Your task to perform on an android device: clear all cookies in the chrome app Image 0: 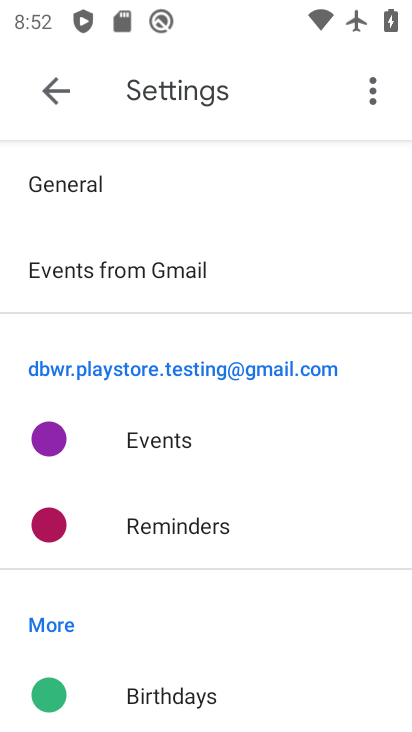
Step 0: press home button
Your task to perform on an android device: clear all cookies in the chrome app Image 1: 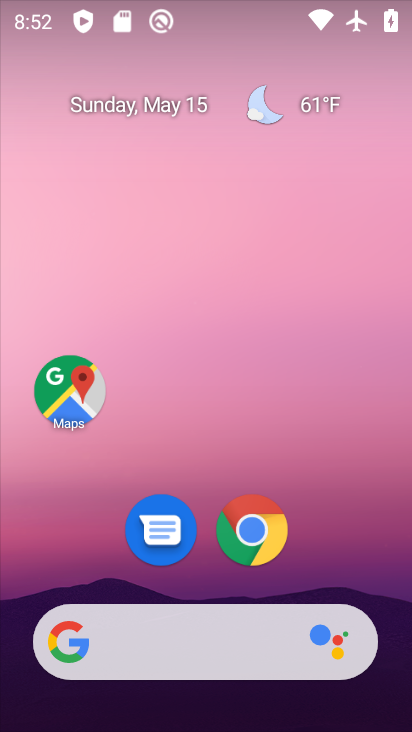
Step 1: click (256, 528)
Your task to perform on an android device: clear all cookies in the chrome app Image 2: 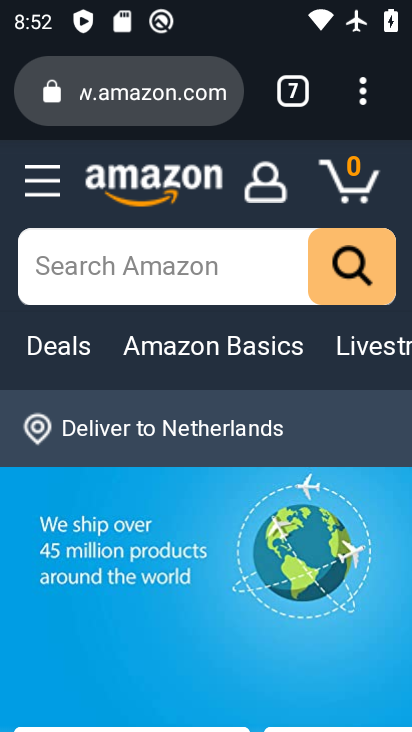
Step 2: click (362, 101)
Your task to perform on an android device: clear all cookies in the chrome app Image 3: 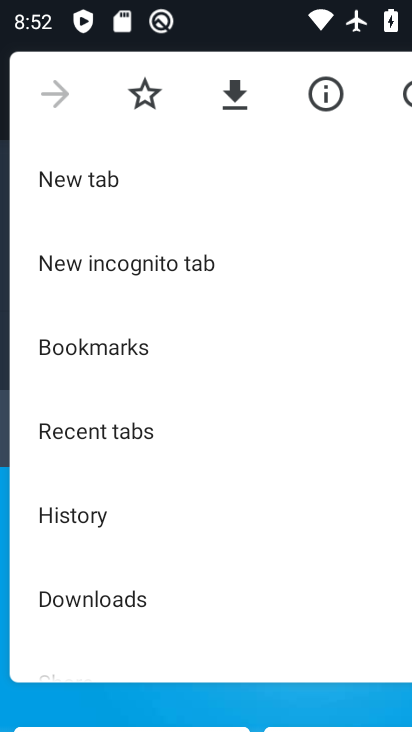
Step 3: click (100, 517)
Your task to perform on an android device: clear all cookies in the chrome app Image 4: 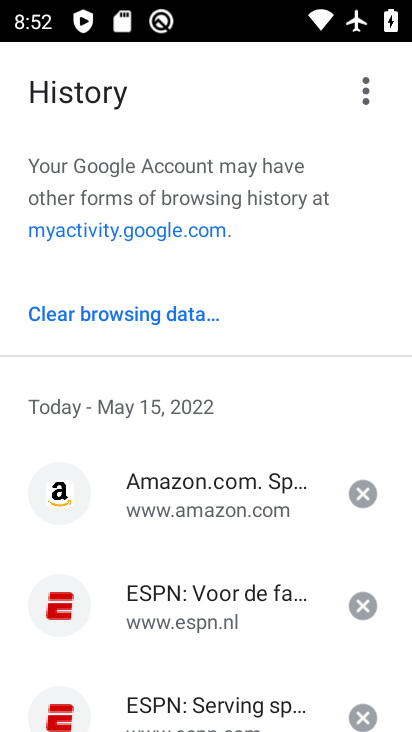
Step 4: click (168, 316)
Your task to perform on an android device: clear all cookies in the chrome app Image 5: 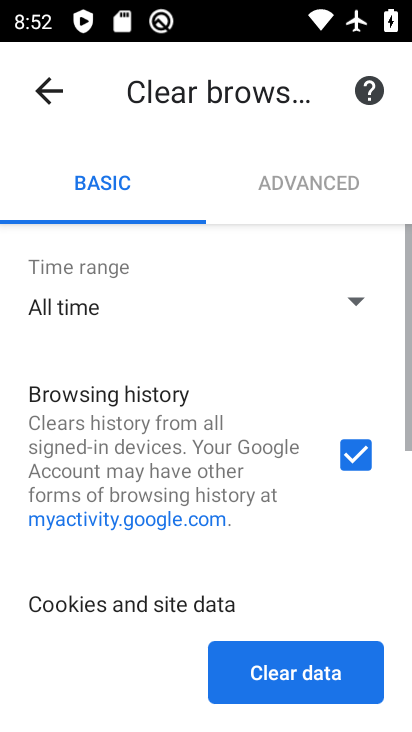
Step 5: drag from (223, 567) to (201, 379)
Your task to perform on an android device: clear all cookies in the chrome app Image 6: 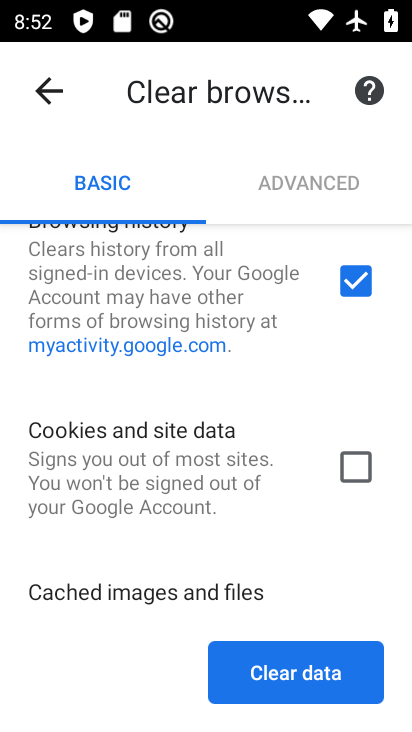
Step 6: click (358, 282)
Your task to perform on an android device: clear all cookies in the chrome app Image 7: 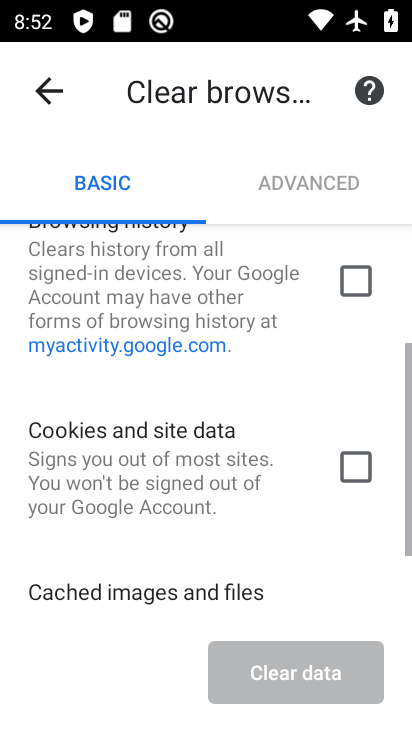
Step 7: drag from (253, 600) to (237, 286)
Your task to perform on an android device: clear all cookies in the chrome app Image 8: 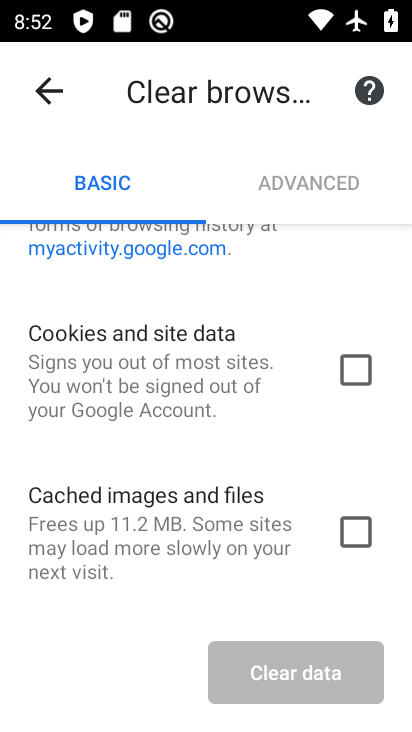
Step 8: click (362, 370)
Your task to perform on an android device: clear all cookies in the chrome app Image 9: 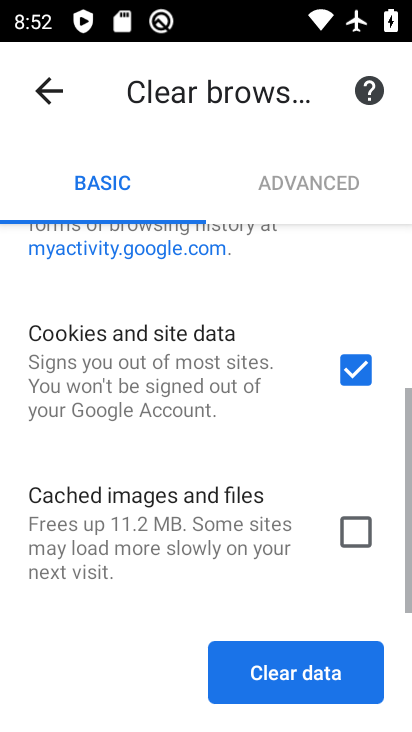
Step 9: click (328, 667)
Your task to perform on an android device: clear all cookies in the chrome app Image 10: 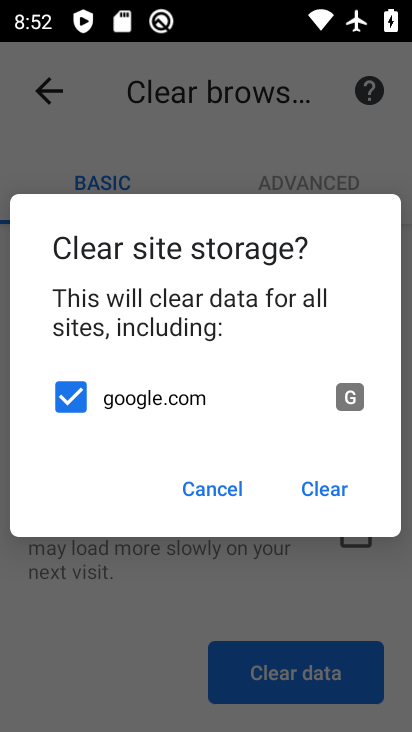
Step 10: click (323, 490)
Your task to perform on an android device: clear all cookies in the chrome app Image 11: 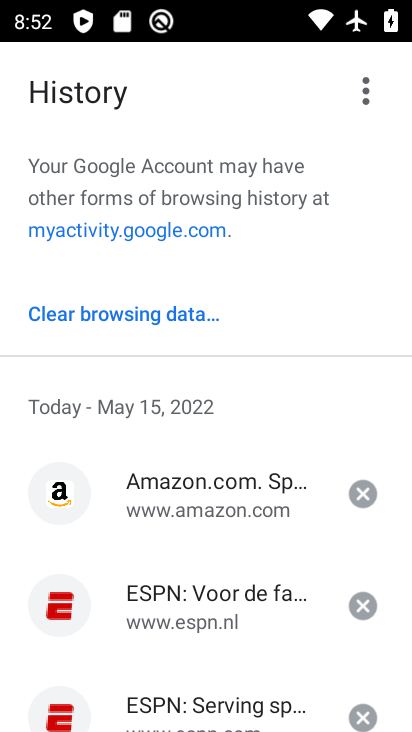
Step 11: task complete